Your task to perform on an android device: Go to location settings Image 0: 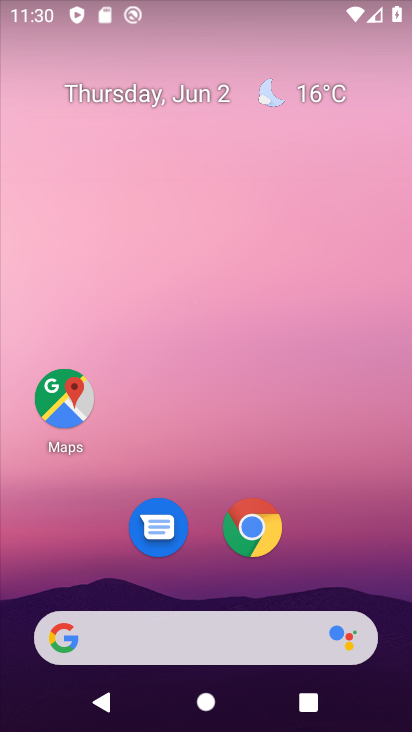
Step 0: drag from (175, 603) to (182, 200)
Your task to perform on an android device: Go to location settings Image 1: 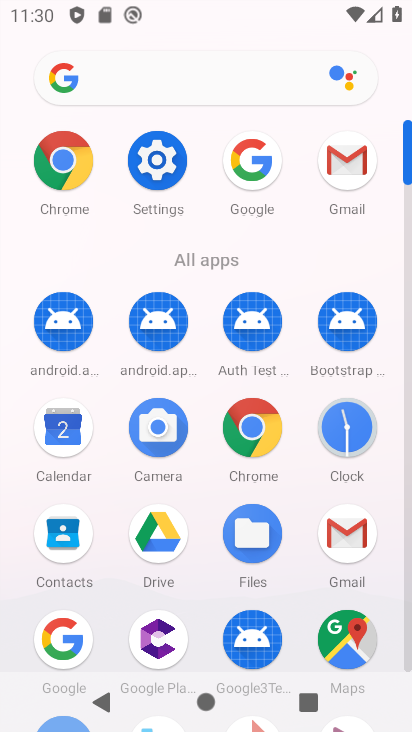
Step 1: click (141, 165)
Your task to perform on an android device: Go to location settings Image 2: 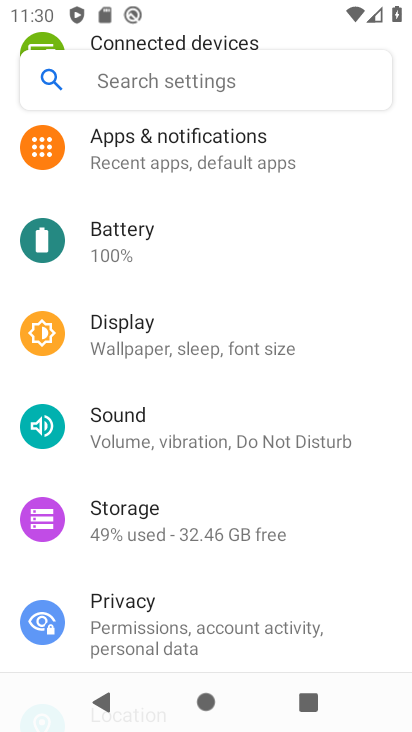
Step 2: click (162, 199)
Your task to perform on an android device: Go to location settings Image 3: 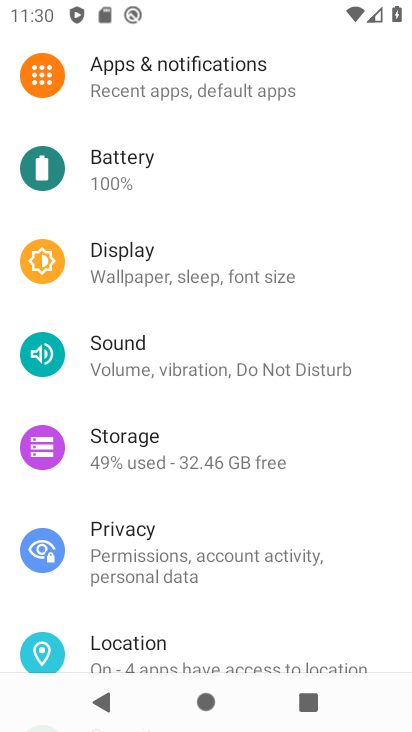
Step 3: click (149, 642)
Your task to perform on an android device: Go to location settings Image 4: 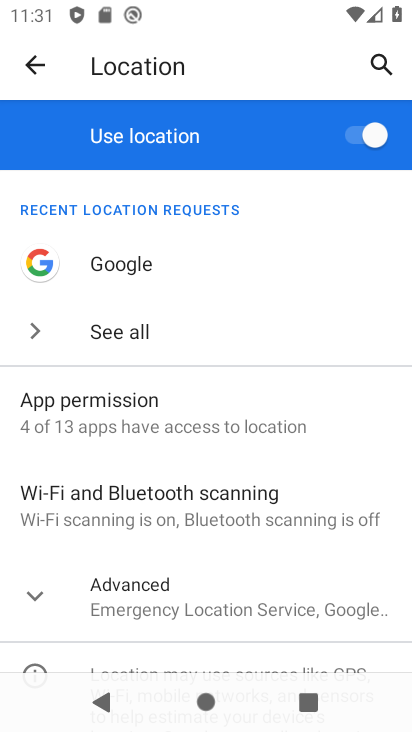
Step 4: task complete